Your task to perform on an android device: Open Reddit.com Image 0: 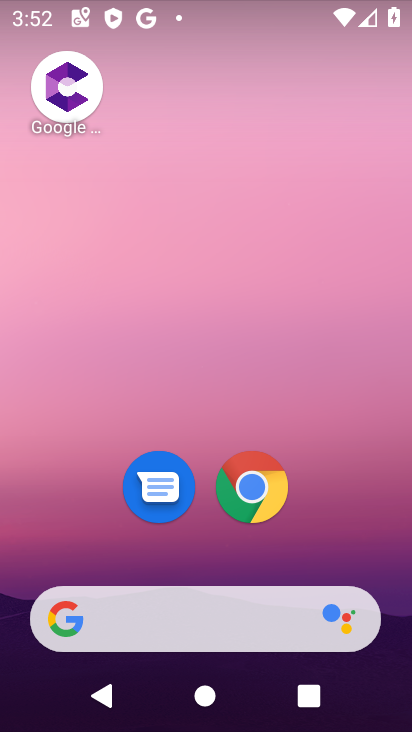
Step 0: click (246, 476)
Your task to perform on an android device: Open Reddit.com Image 1: 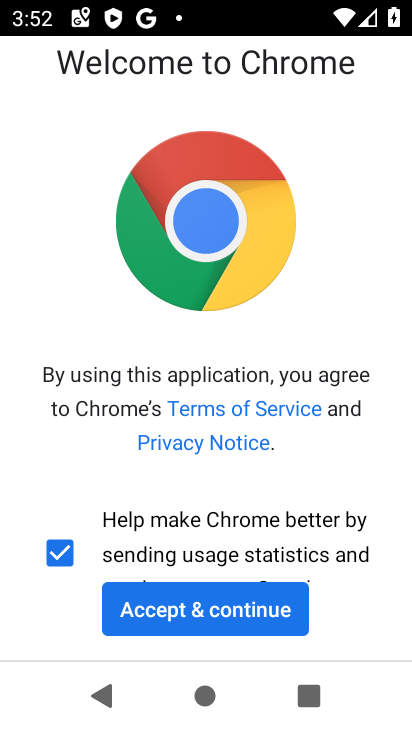
Step 1: click (236, 605)
Your task to perform on an android device: Open Reddit.com Image 2: 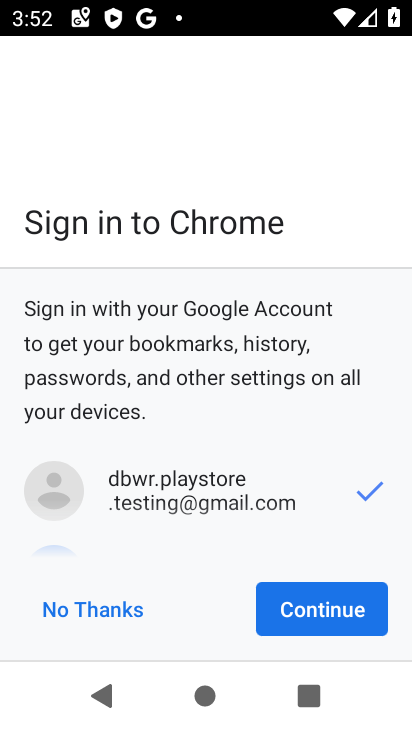
Step 2: click (293, 603)
Your task to perform on an android device: Open Reddit.com Image 3: 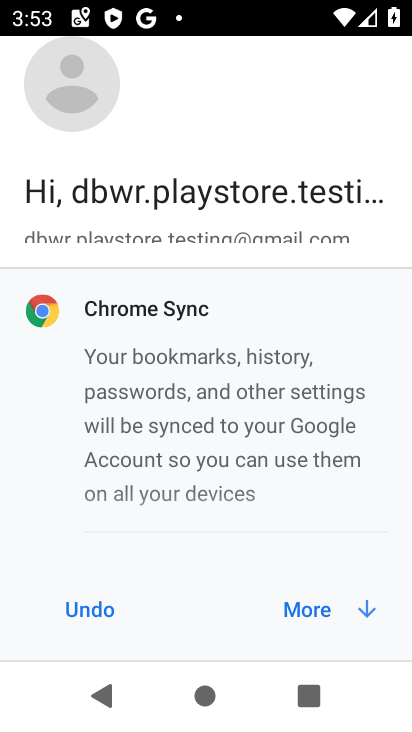
Step 3: click (345, 610)
Your task to perform on an android device: Open Reddit.com Image 4: 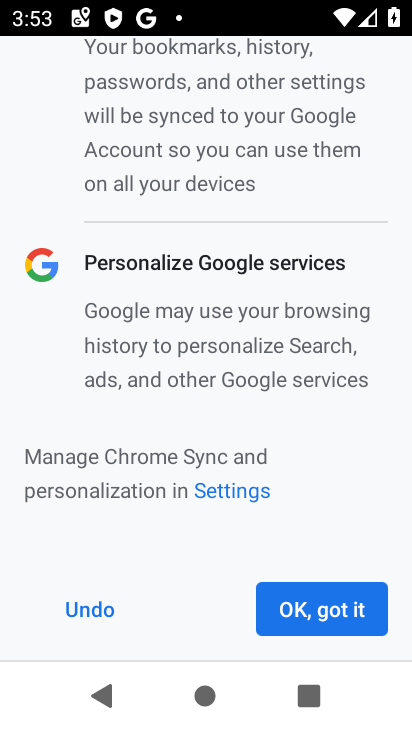
Step 4: click (346, 606)
Your task to perform on an android device: Open Reddit.com Image 5: 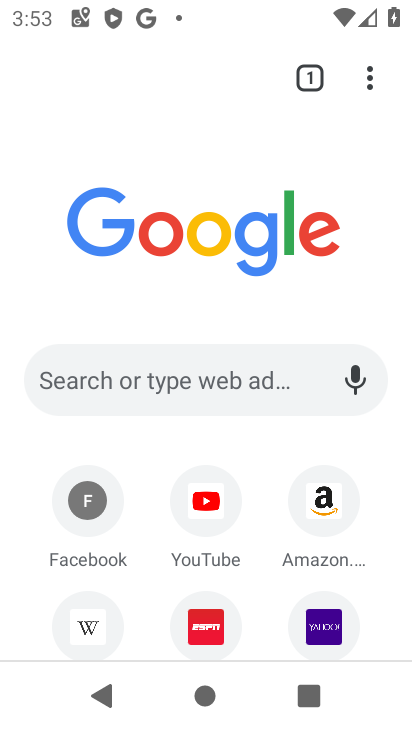
Step 5: click (225, 378)
Your task to perform on an android device: Open Reddit.com Image 6: 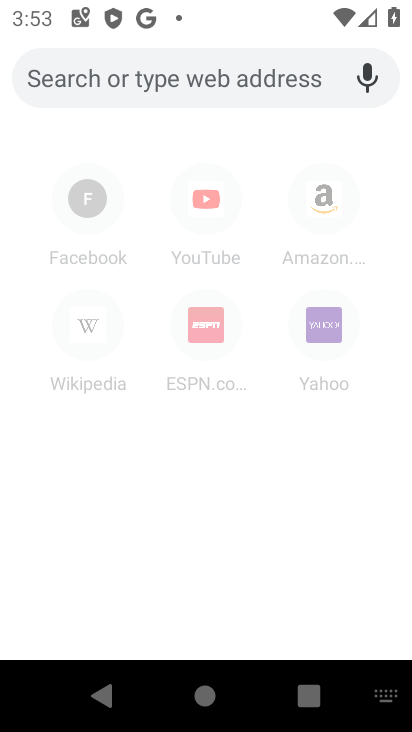
Step 6: type "reddit.com"
Your task to perform on an android device: Open Reddit.com Image 7: 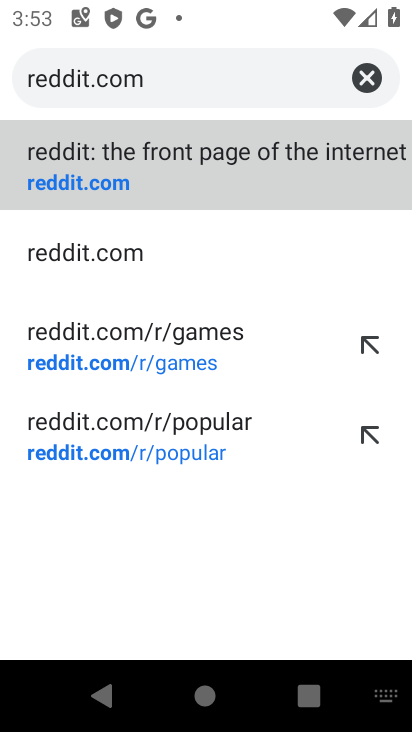
Step 7: click (89, 180)
Your task to perform on an android device: Open Reddit.com Image 8: 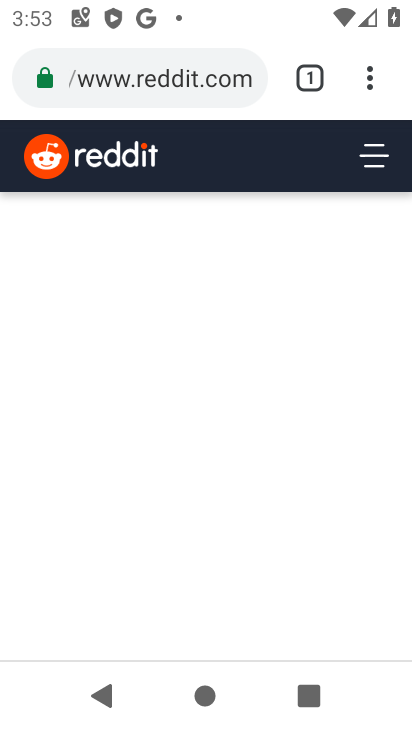
Step 8: task complete